Your task to perform on an android device: create a new album in the google photos Image 0: 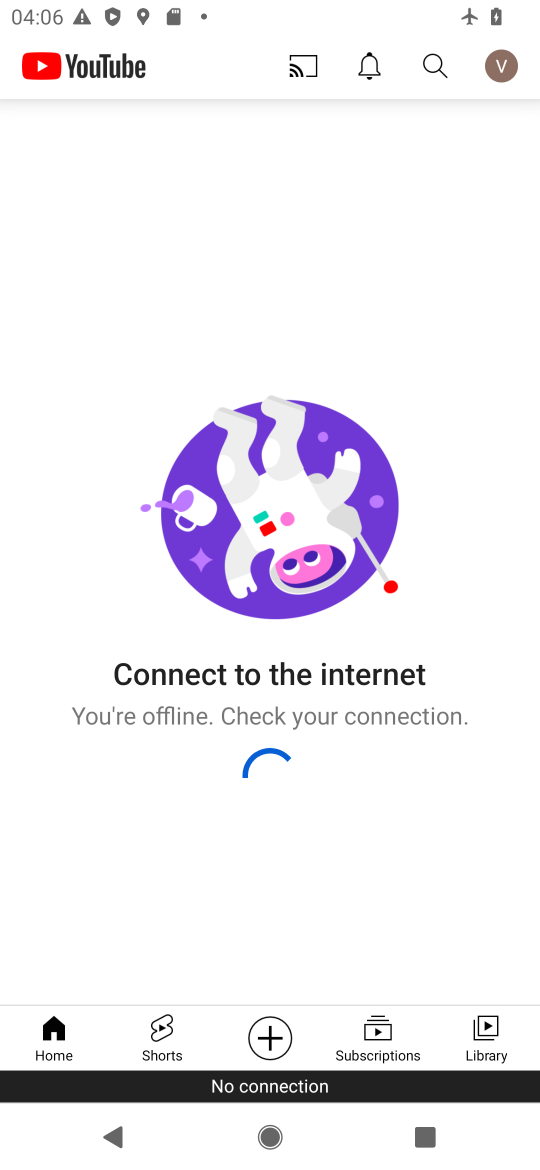
Step 0: press home button
Your task to perform on an android device: create a new album in the google photos Image 1: 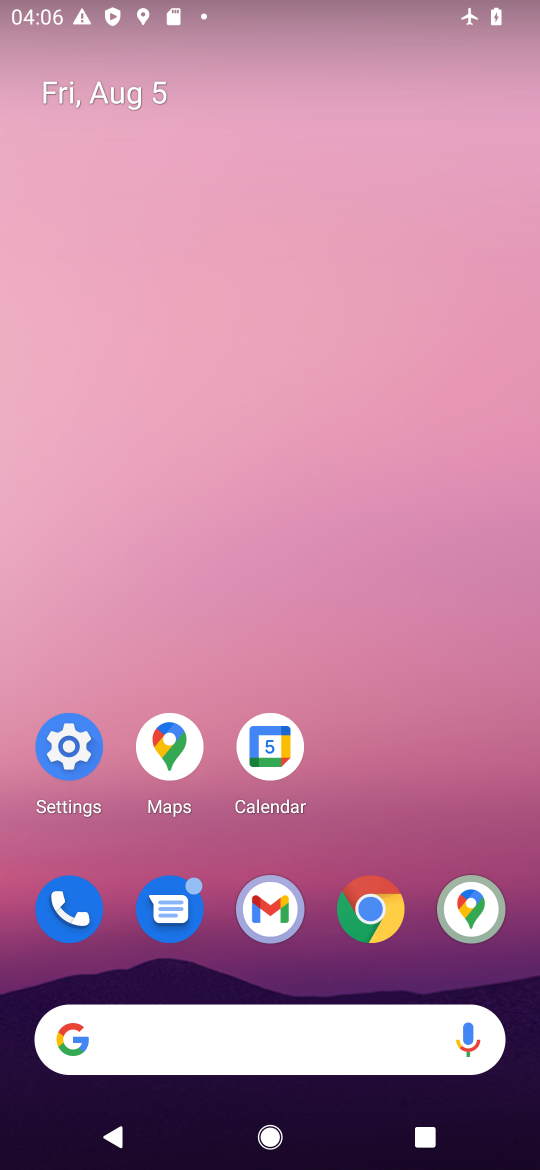
Step 1: drag from (370, 766) to (251, 58)
Your task to perform on an android device: create a new album in the google photos Image 2: 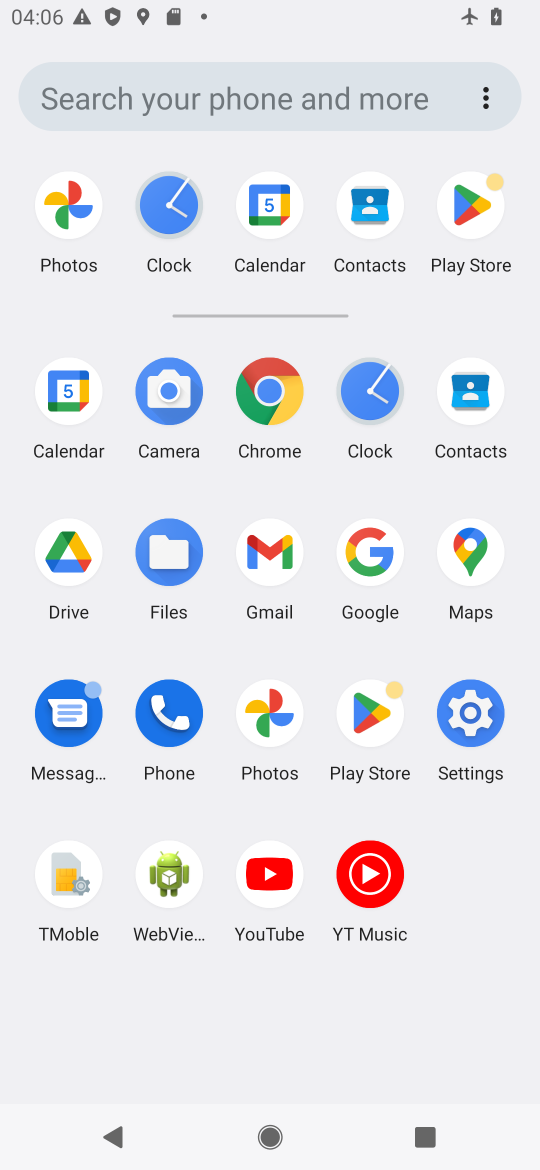
Step 2: click (68, 203)
Your task to perform on an android device: create a new album in the google photos Image 3: 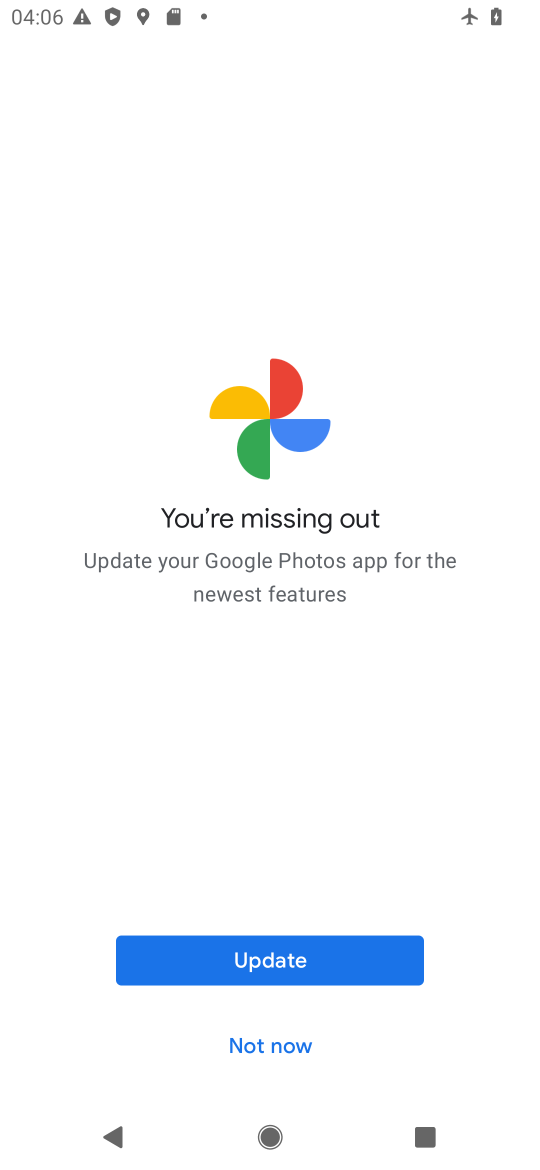
Step 3: click (277, 964)
Your task to perform on an android device: create a new album in the google photos Image 4: 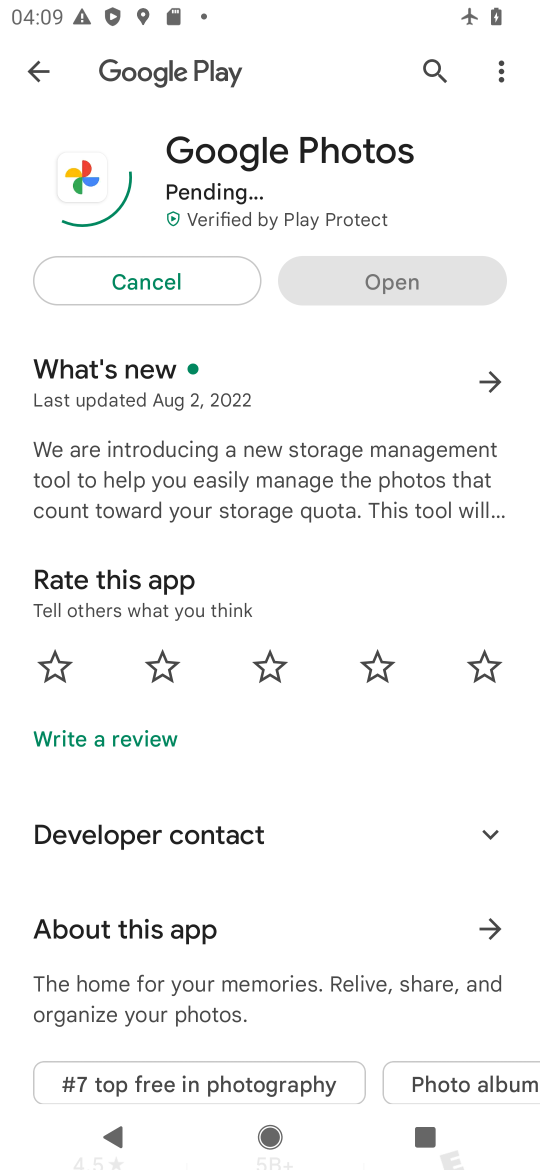
Step 4: task complete